Your task to perform on an android device: open app "Yahoo Mail" Image 0: 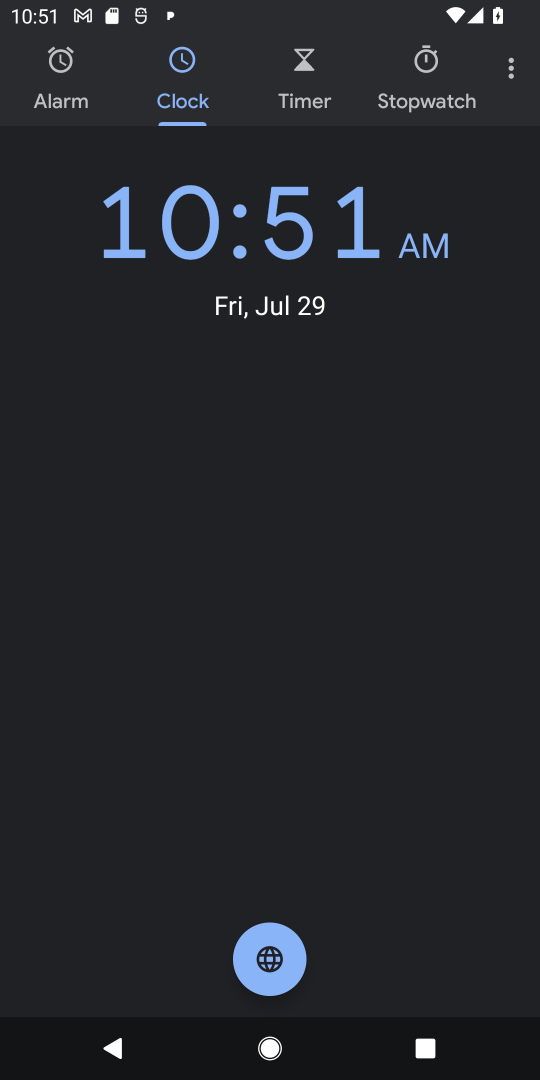
Step 0: press home button
Your task to perform on an android device: open app "Yahoo Mail" Image 1: 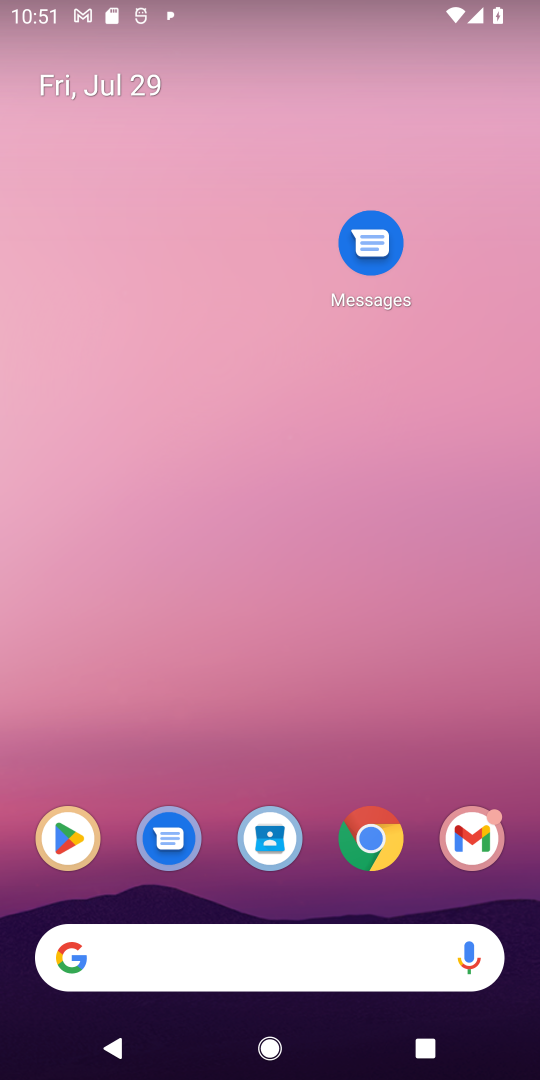
Step 1: click (84, 841)
Your task to perform on an android device: open app "Yahoo Mail" Image 2: 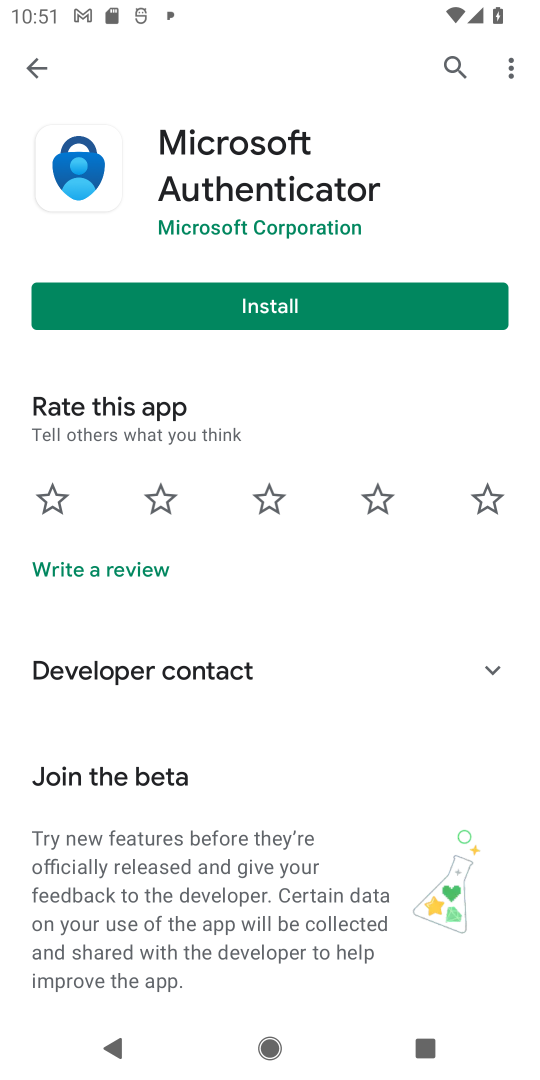
Step 2: click (27, 62)
Your task to perform on an android device: open app "Yahoo Mail" Image 3: 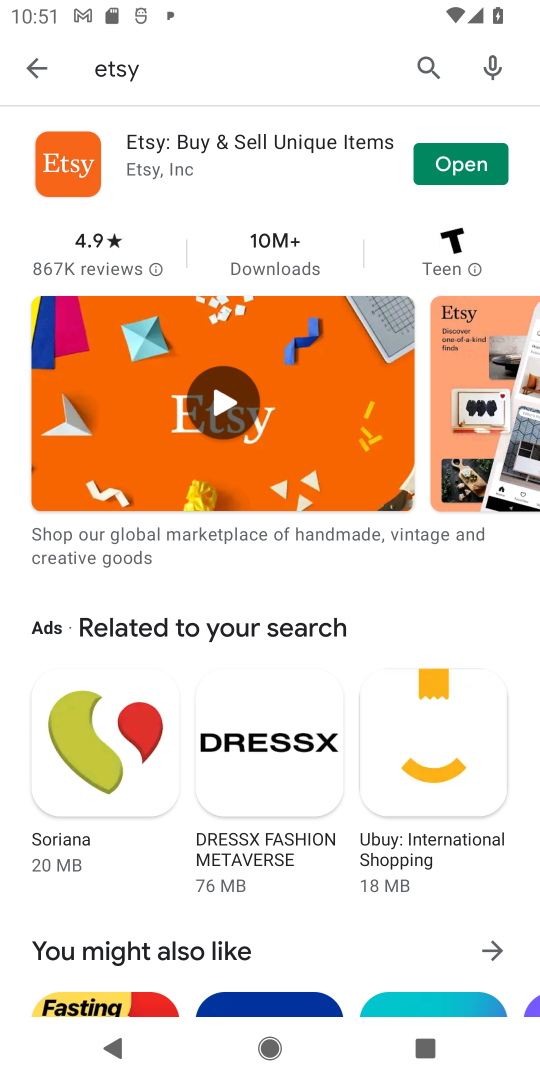
Step 3: click (206, 69)
Your task to perform on an android device: open app "Yahoo Mail" Image 4: 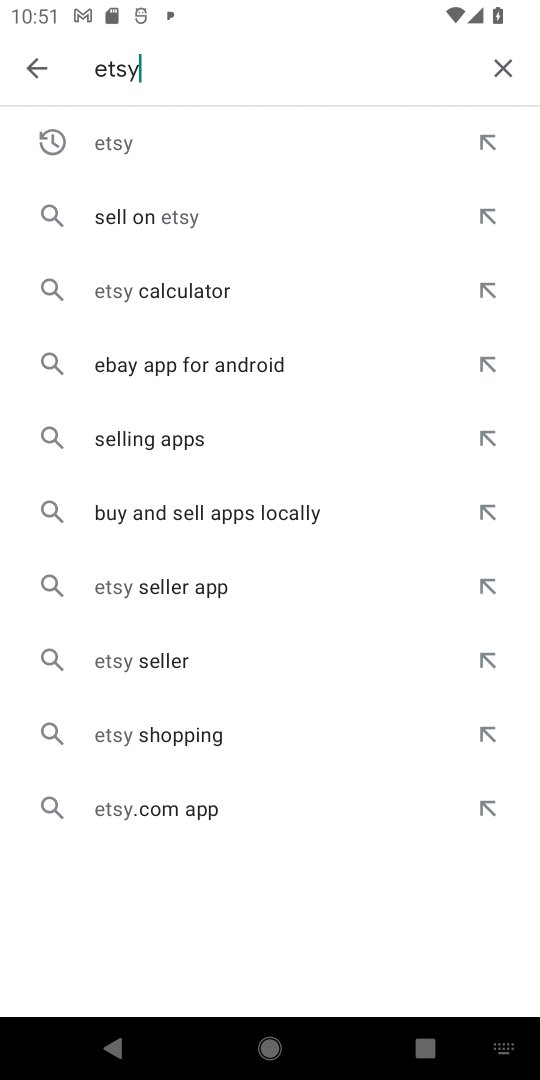
Step 4: click (499, 71)
Your task to perform on an android device: open app "Yahoo Mail" Image 5: 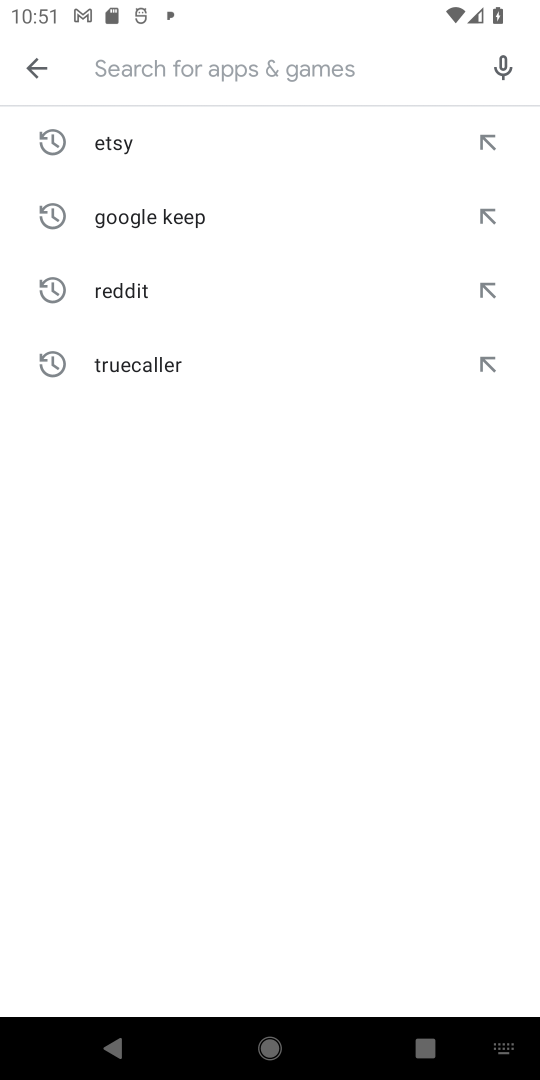
Step 5: type "Yahoo Mail"
Your task to perform on an android device: open app "Yahoo Mail" Image 6: 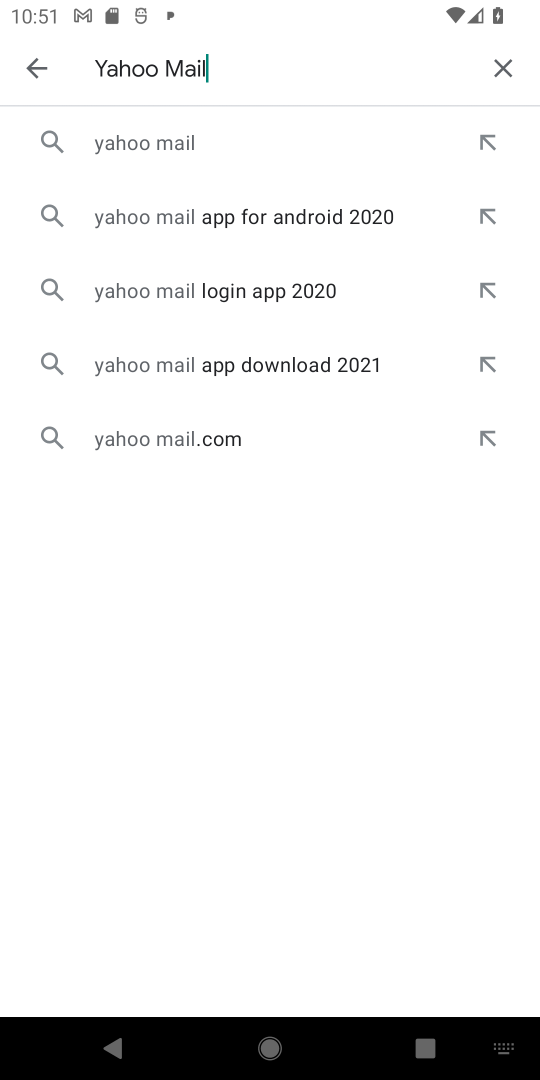
Step 6: click (146, 147)
Your task to perform on an android device: open app "Yahoo Mail" Image 7: 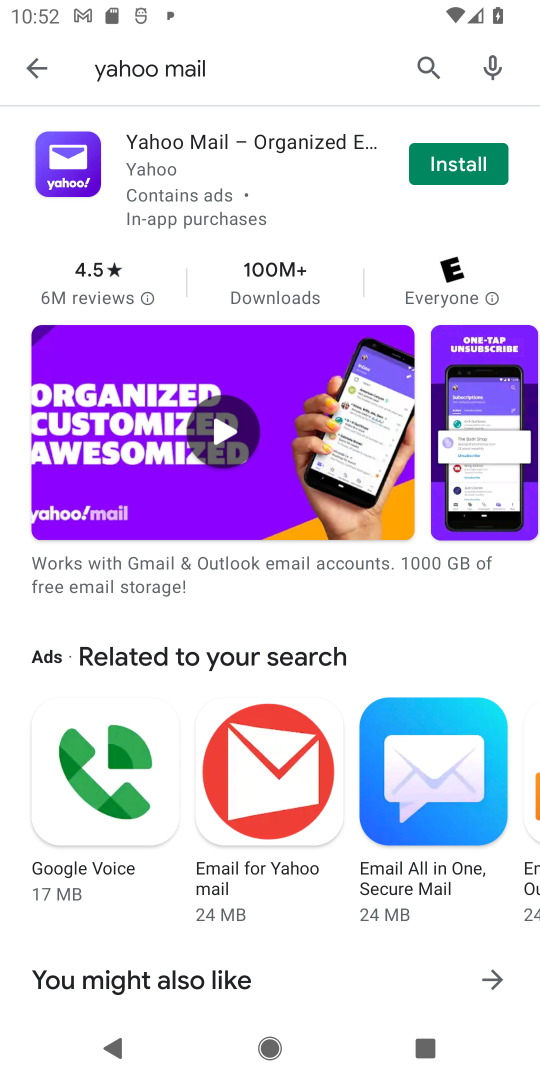
Step 7: task complete